Your task to perform on an android device: toggle translation in the chrome app Image 0: 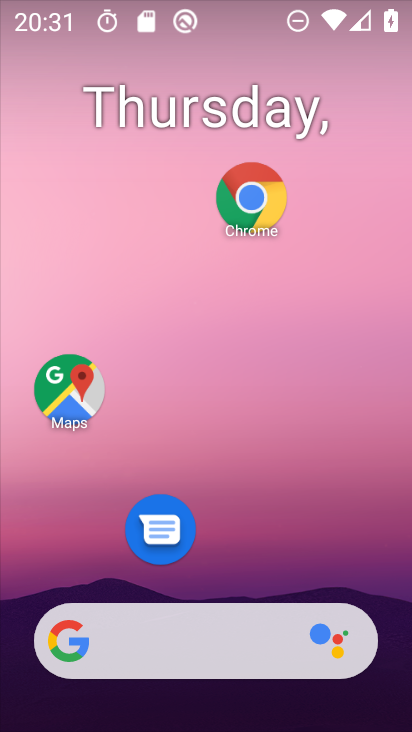
Step 0: drag from (232, 572) to (225, 60)
Your task to perform on an android device: toggle translation in the chrome app Image 1: 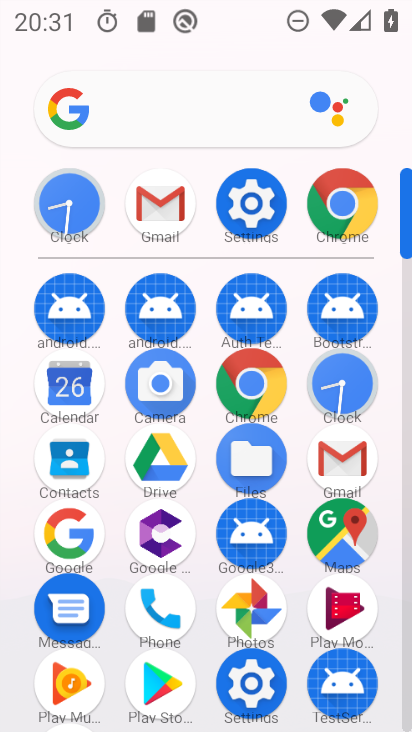
Step 1: click (342, 199)
Your task to perform on an android device: toggle translation in the chrome app Image 2: 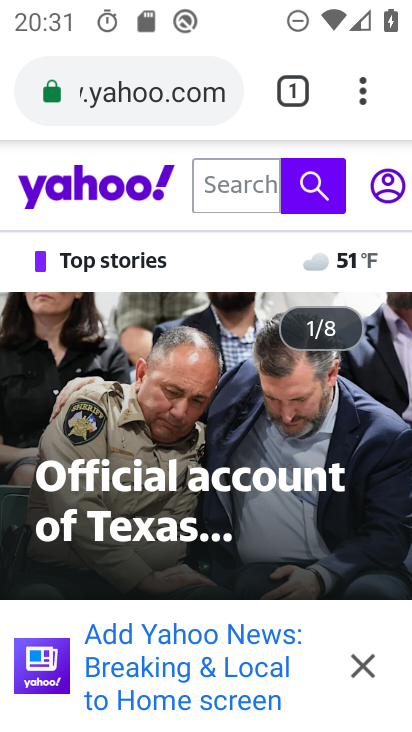
Step 2: click (359, 89)
Your task to perform on an android device: toggle translation in the chrome app Image 3: 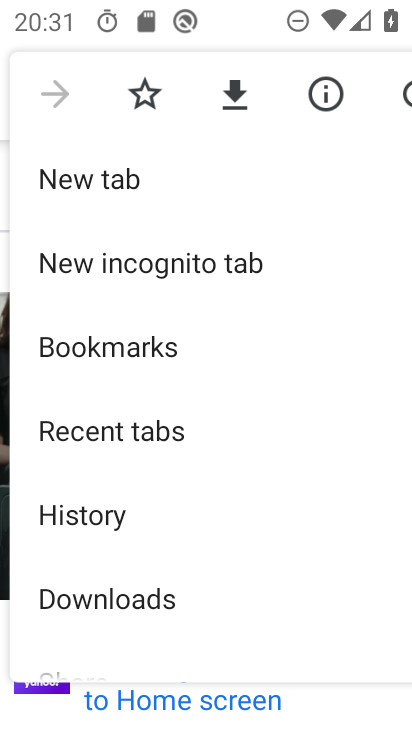
Step 3: drag from (194, 418) to (192, 232)
Your task to perform on an android device: toggle translation in the chrome app Image 4: 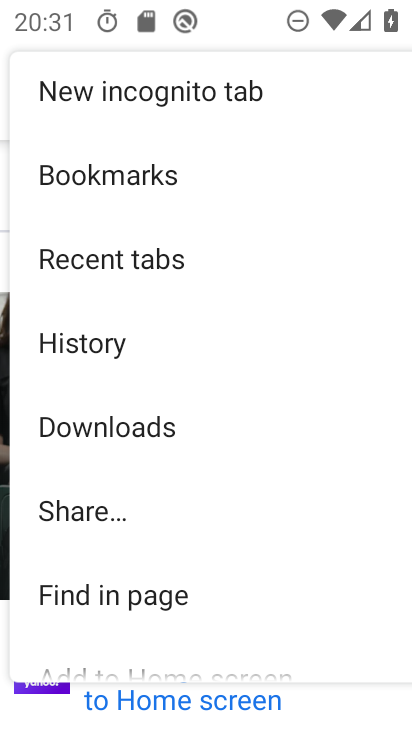
Step 4: drag from (245, 566) to (240, 266)
Your task to perform on an android device: toggle translation in the chrome app Image 5: 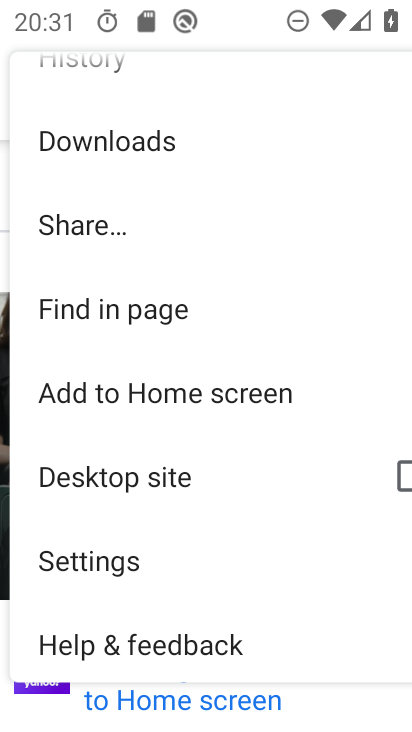
Step 5: click (85, 569)
Your task to perform on an android device: toggle translation in the chrome app Image 6: 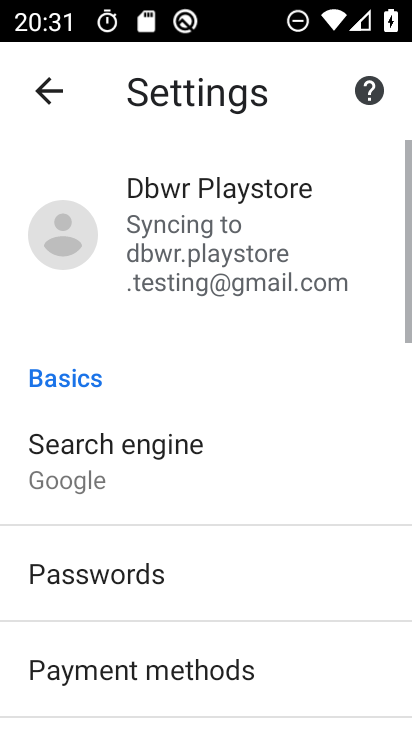
Step 6: drag from (152, 641) to (145, 269)
Your task to perform on an android device: toggle translation in the chrome app Image 7: 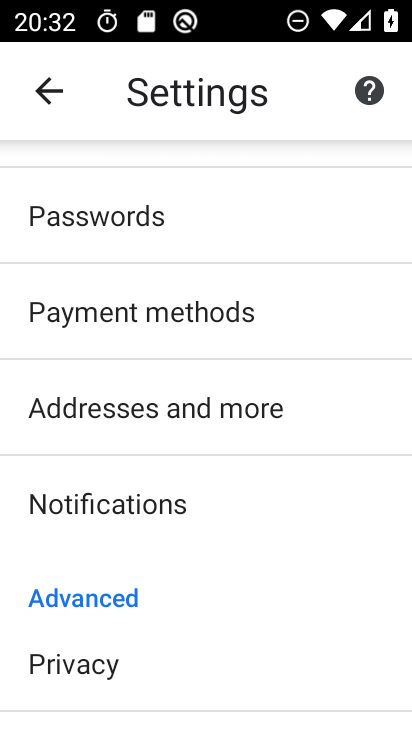
Step 7: drag from (139, 619) to (122, 289)
Your task to perform on an android device: toggle translation in the chrome app Image 8: 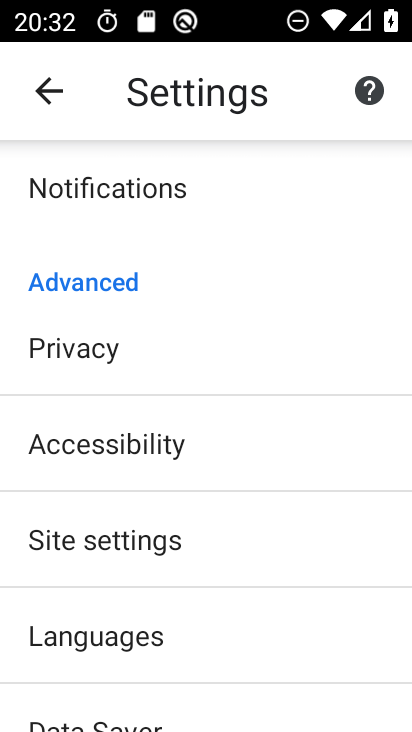
Step 8: click (121, 645)
Your task to perform on an android device: toggle translation in the chrome app Image 9: 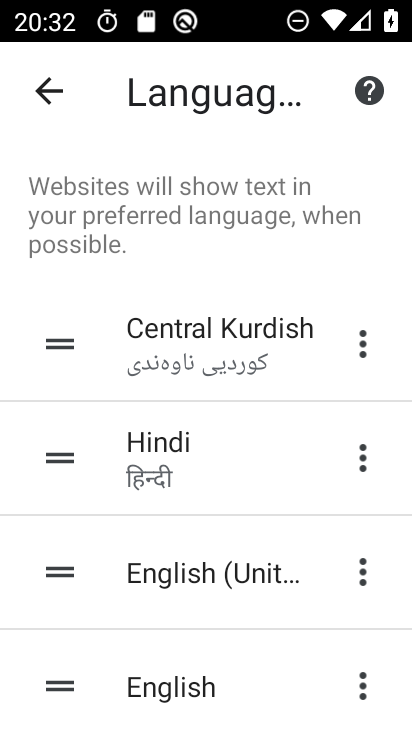
Step 9: drag from (258, 646) to (265, 334)
Your task to perform on an android device: toggle translation in the chrome app Image 10: 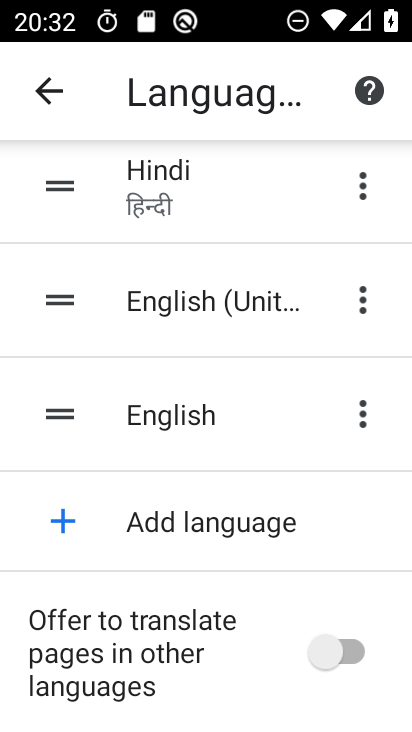
Step 10: click (355, 661)
Your task to perform on an android device: toggle translation in the chrome app Image 11: 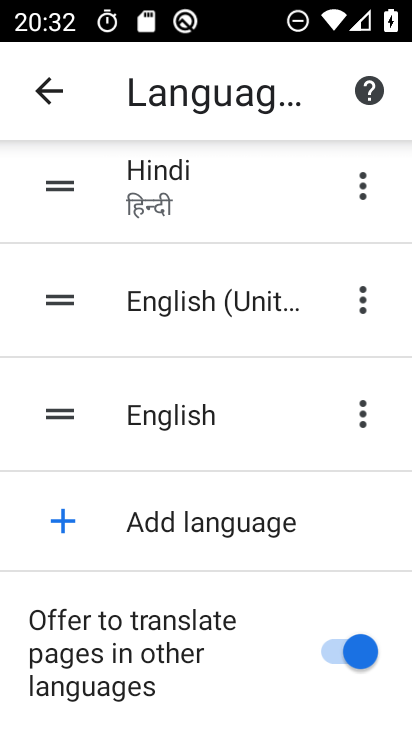
Step 11: task complete